Your task to perform on an android device: What's the weather? Image 0: 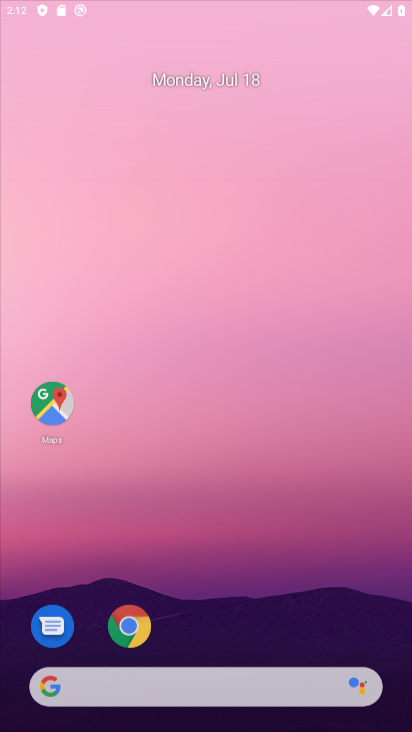
Step 0: drag from (339, 390) to (301, 166)
Your task to perform on an android device: What's the weather? Image 1: 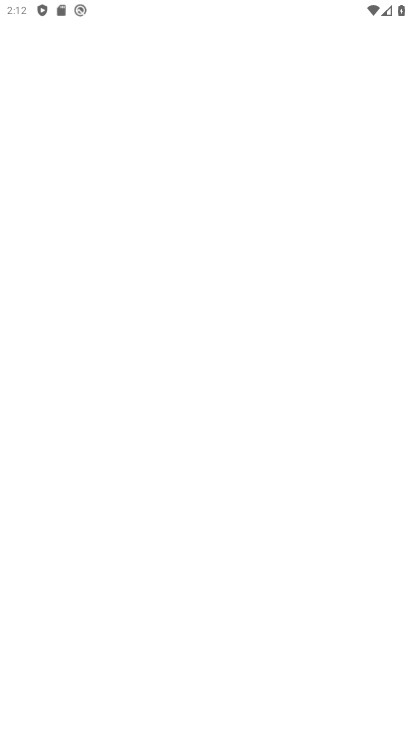
Step 1: press home button
Your task to perform on an android device: What's the weather? Image 2: 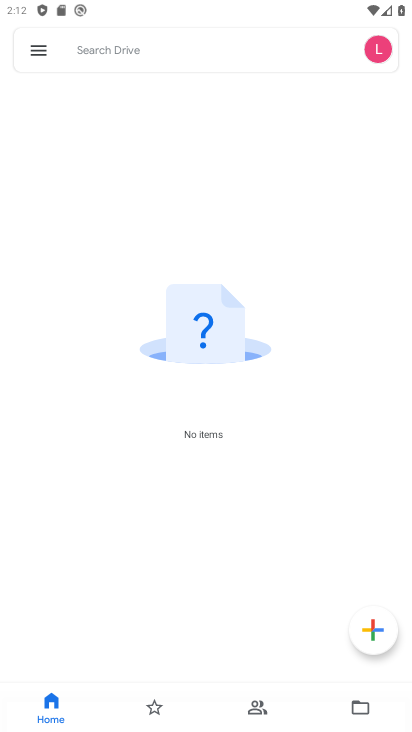
Step 2: drag from (325, 471) to (229, 62)
Your task to perform on an android device: What's the weather? Image 3: 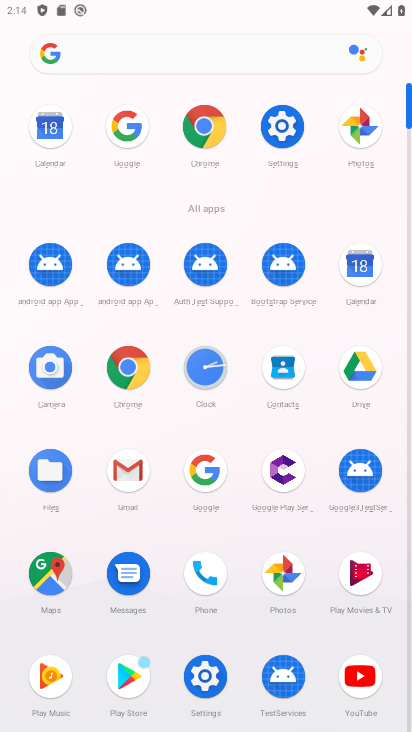
Step 3: click (196, 467)
Your task to perform on an android device: What's the weather? Image 4: 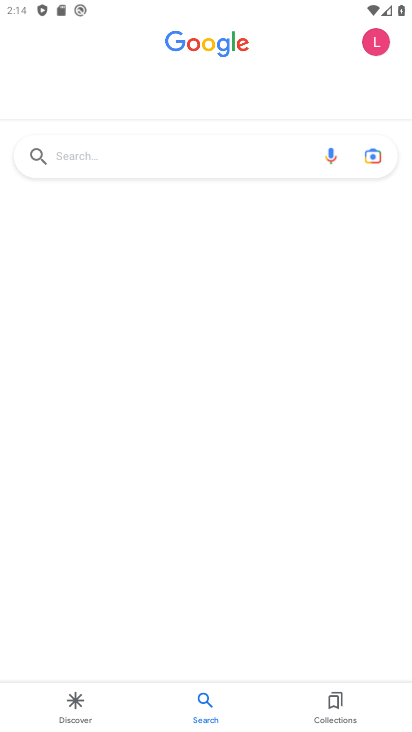
Step 4: click (173, 162)
Your task to perform on an android device: What's the weather? Image 5: 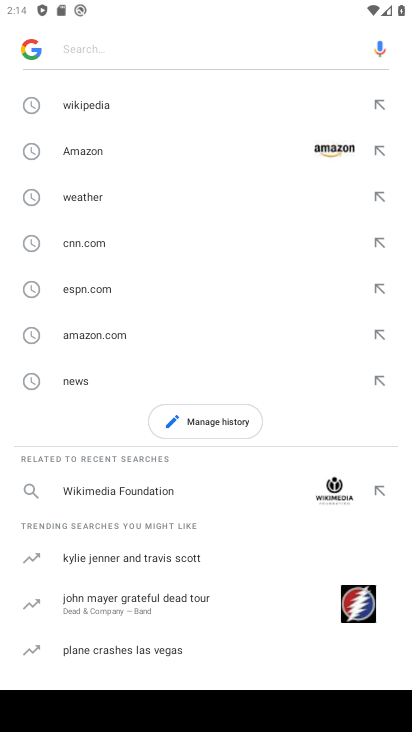
Step 5: type " weather"
Your task to perform on an android device: What's the weather? Image 6: 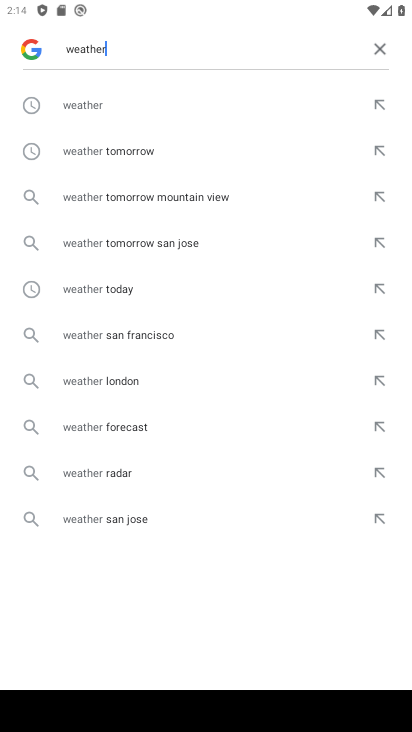
Step 6: click (100, 117)
Your task to perform on an android device: What's the weather? Image 7: 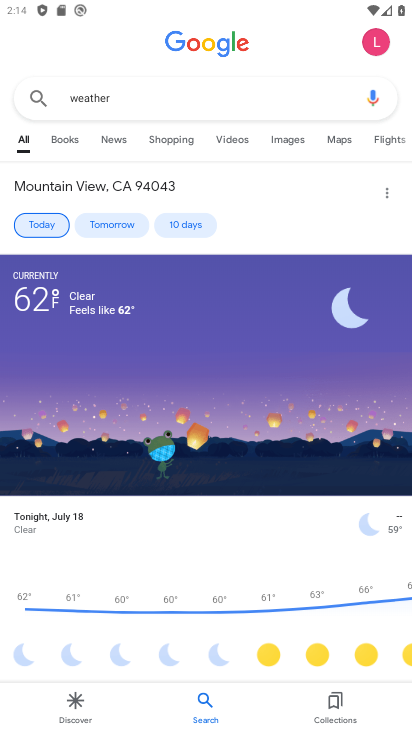
Step 7: task complete